Your task to perform on an android device: Open calendar and show me the third week of next month Image 0: 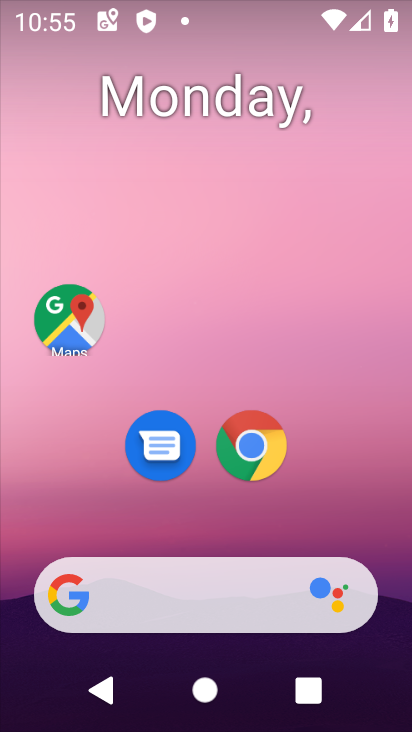
Step 0: drag from (227, 454) to (270, 87)
Your task to perform on an android device: Open calendar and show me the third week of next month Image 1: 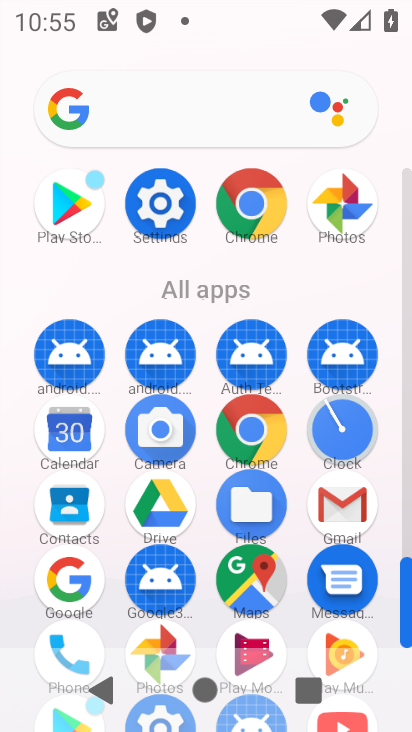
Step 1: click (63, 417)
Your task to perform on an android device: Open calendar and show me the third week of next month Image 2: 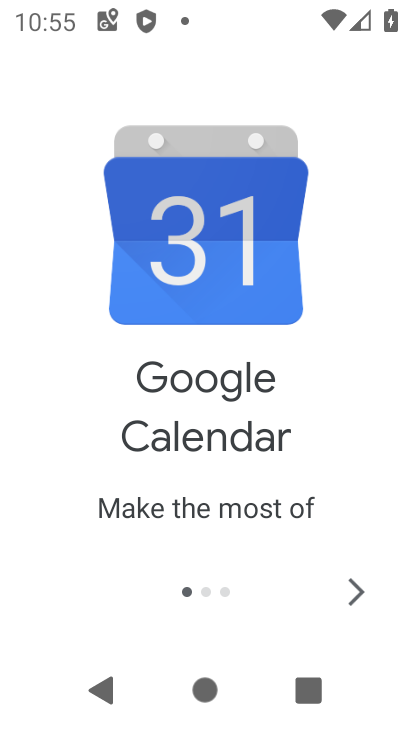
Step 2: click (344, 588)
Your task to perform on an android device: Open calendar and show me the third week of next month Image 3: 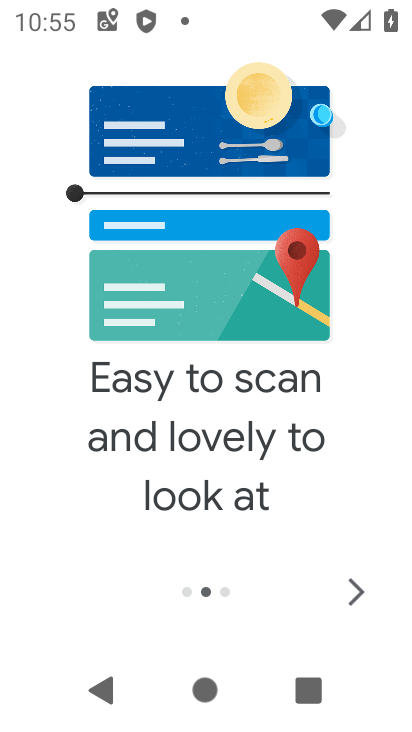
Step 3: click (344, 582)
Your task to perform on an android device: Open calendar and show me the third week of next month Image 4: 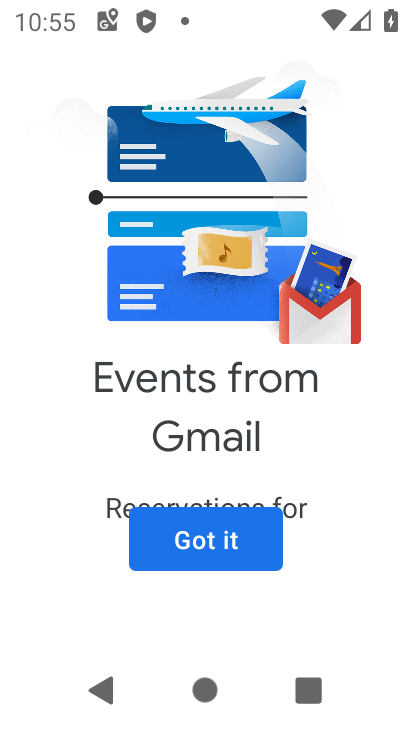
Step 4: click (172, 548)
Your task to perform on an android device: Open calendar and show me the third week of next month Image 5: 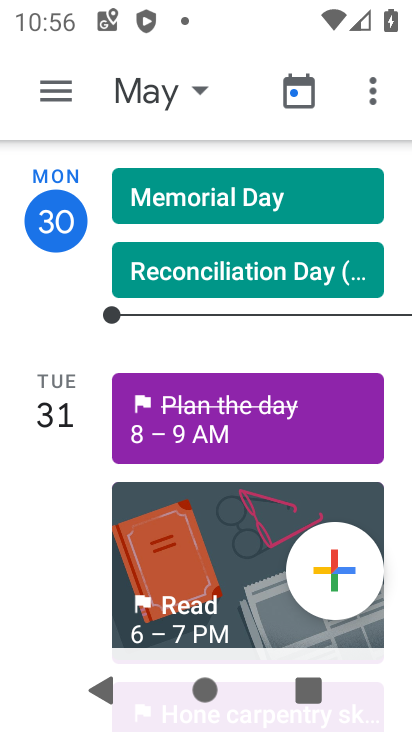
Step 5: click (161, 95)
Your task to perform on an android device: Open calendar and show me the third week of next month Image 6: 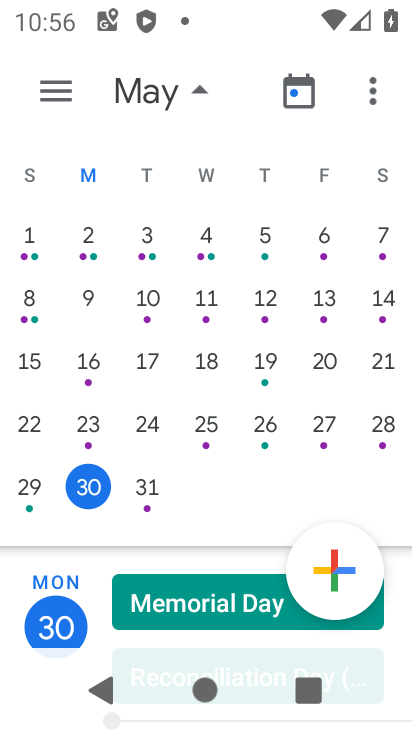
Step 6: drag from (373, 331) to (29, 394)
Your task to perform on an android device: Open calendar and show me the third week of next month Image 7: 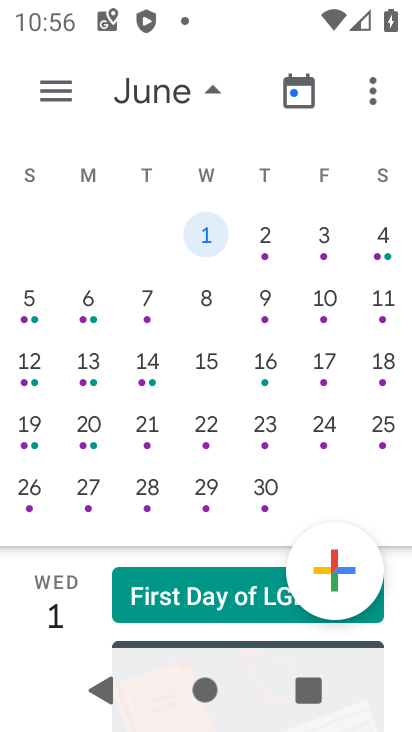
Step 7: drag from (368, 377) to (331, 350)
Your task to perform on an android device: Open calendar and show me the third week of next month Image 8: 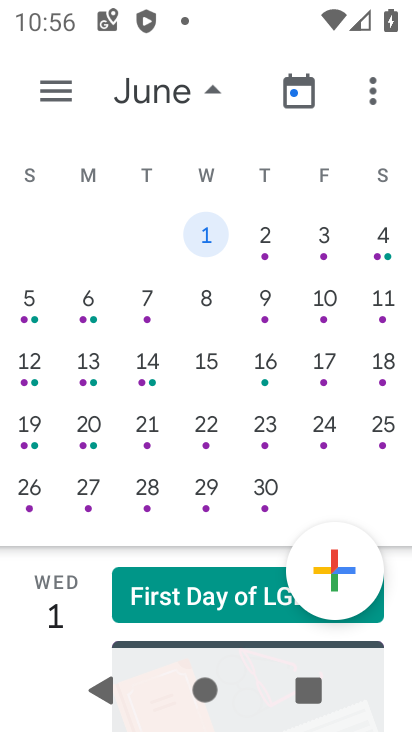
Step 8: click (97, 363)
Your task to perform on an android device: Open calendar and show me the third week of next month Image 9: 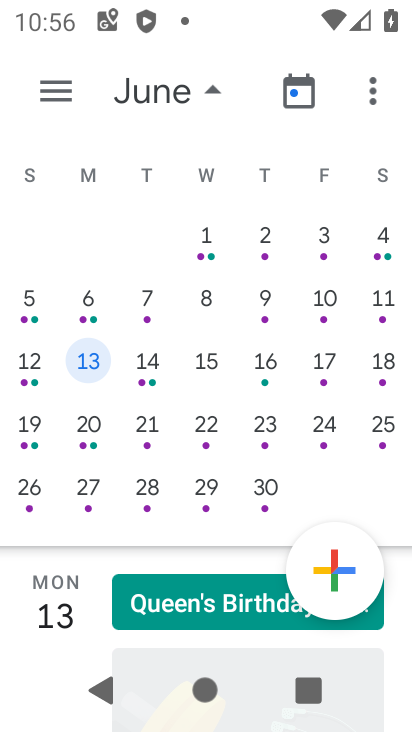
Step 9: task complete